Your task to perform on an android device: open sync settings in chrome Image 0: 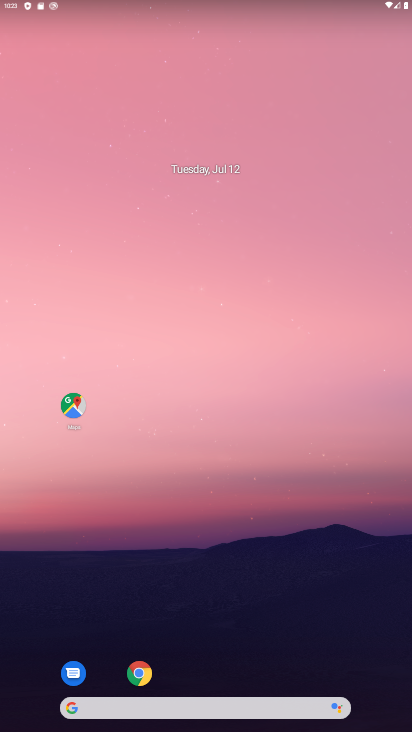
Step 0: drag from (263, 623) to (212, 149)
Your task to perform on an android device: open sync settings in chrome Image 1: 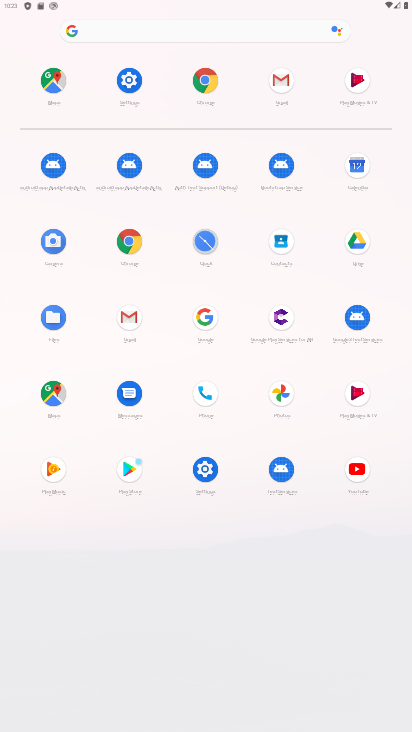
Step 1: click (133, 240)
Your task to perform on an android device: open sync settings in chrome Image 2: 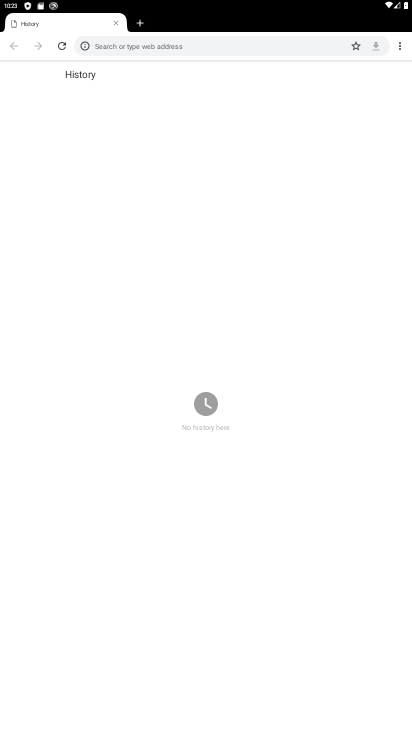
Step 2: drag from (402, 41) to (313, 243)
Your task to perform on an android device: open sync settings in chrome Image 3: 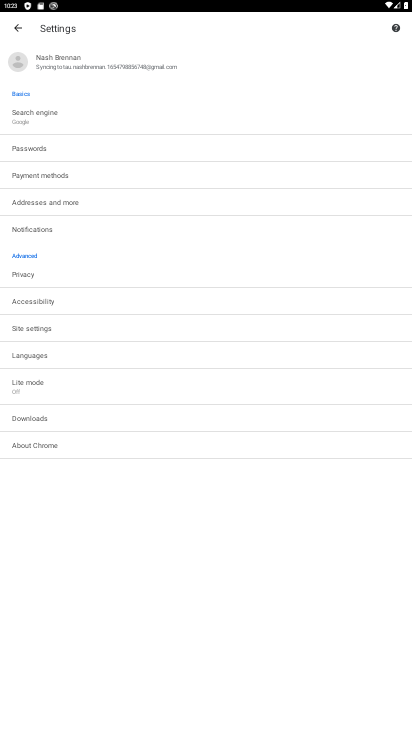
Step 3: click (139, 64)
Your task to perform on an android device: open sync settings in chrome Image 4: 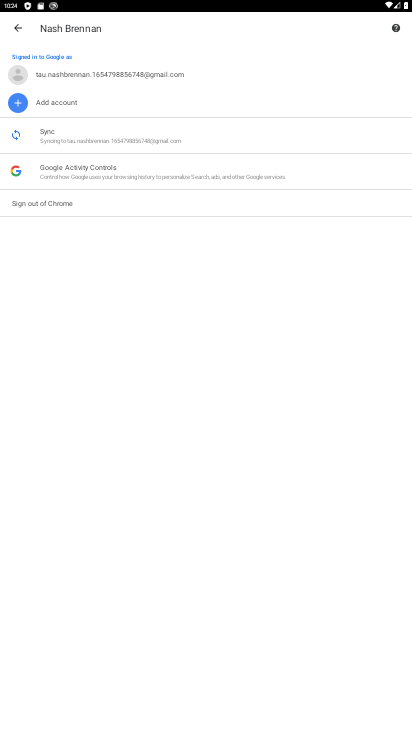
Step 4: click (102, 129)
Your task to perform on an android device: open sync settings in chrome Image 5: 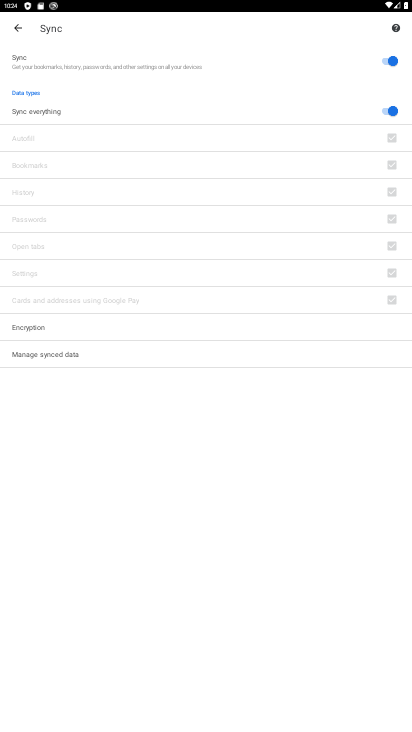
Step 5: task complete